Your task to perform on an android device: Open settings on Google Maps Image 0: 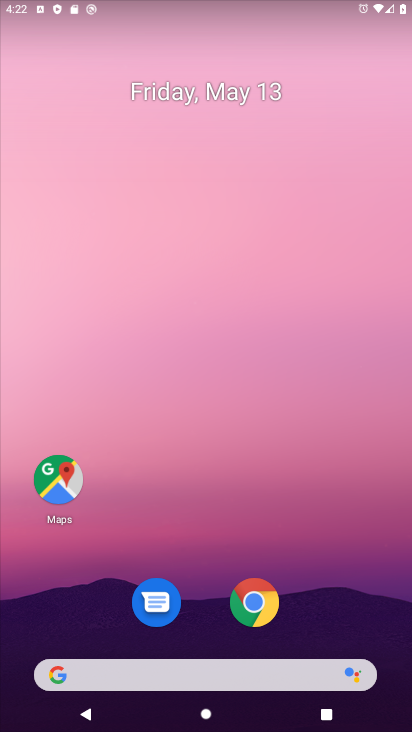
Step 0: click (65, 481)
Your task to perform on an android device: Open settings on Google Maps Image 1: 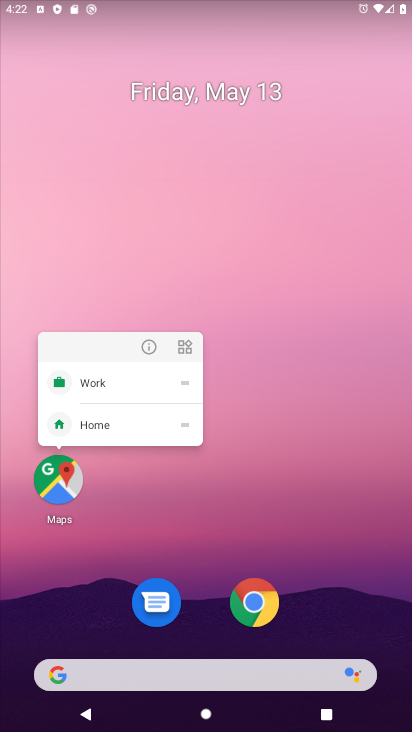
Step 1: click (65, 481)
Your task to perform on an android device: Open settings on Google Maps Image 2: 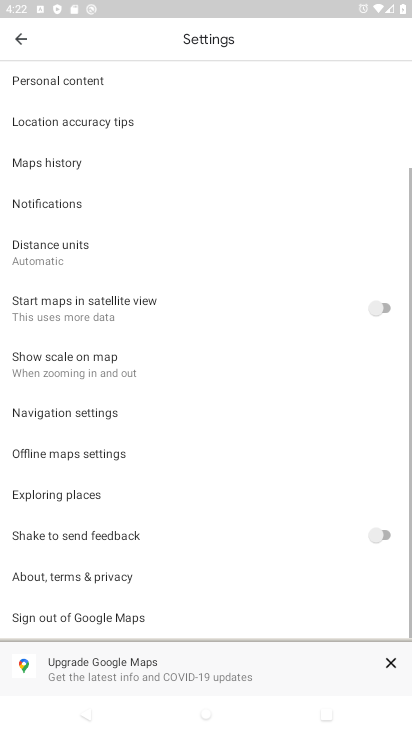
Step 2: click (16, 32)
Your task to perform on an android device: Open settings on Google Maps Image 3: 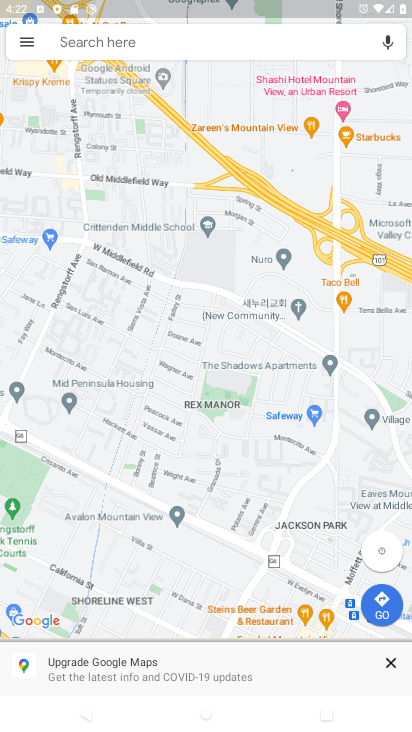
Step 3: click (34, 35)
Your task to perform on an android device: Open settings on Google Maps Image 4: 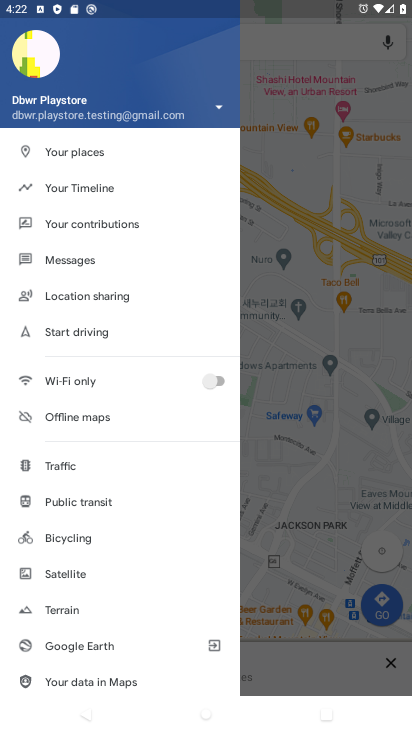
Step 4: drag from (68, 604) to (108, 316)
Your task to perform on an android device: Open settings on Google Maps Image 5: 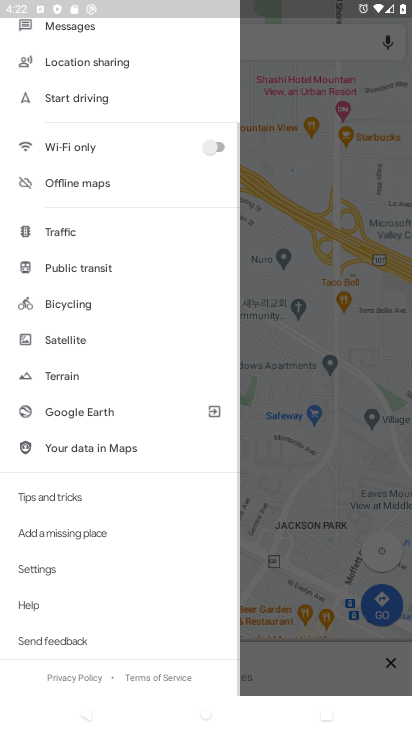
Step 5: click (53, 578)
Your task to perform on an android device: Open settings on Google Maps Image 6: 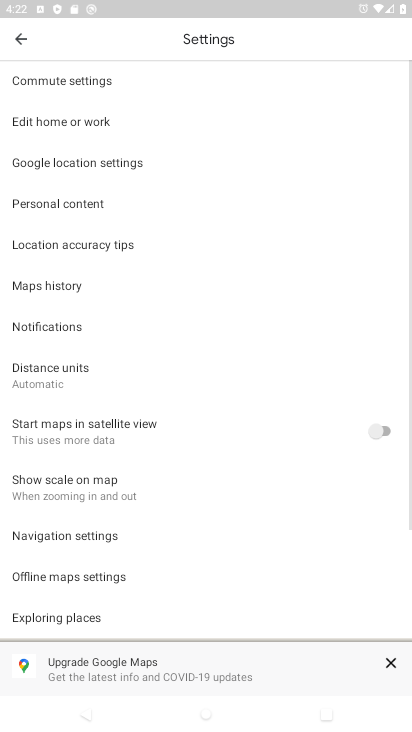
Step 6: task complete